Your task to perform on an android device: Open calendar and show me the first week of next month Image 0: 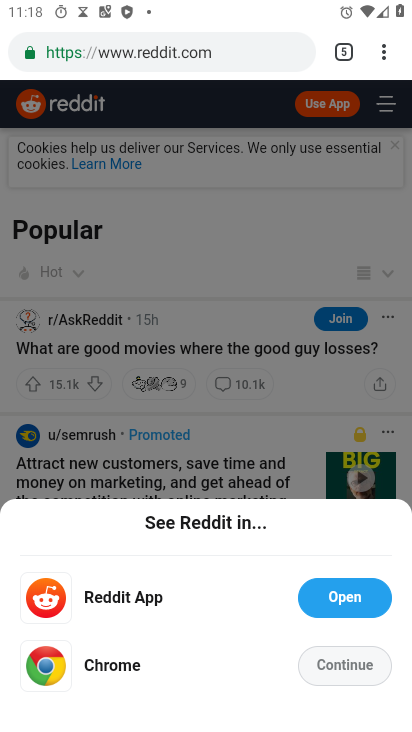
Step 0: press home button
Your task to perform on an android device: Open calendar and show me the first week of next month Image 1: 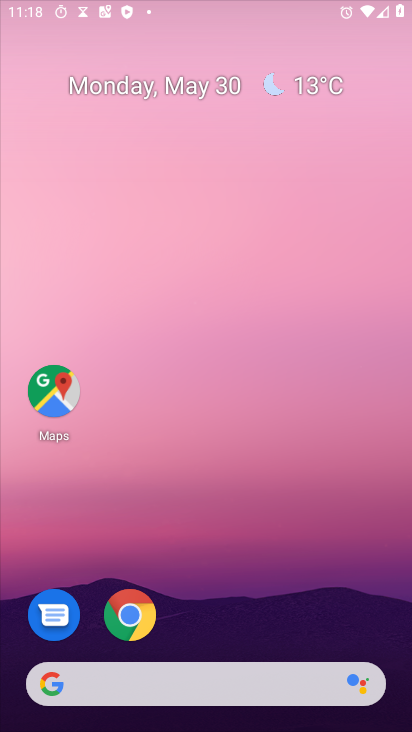
Step 1: drag from (368, 585) to (363, 50)
Your task to perform on an android device: Open calendar and show me the first week of next month Image 2: 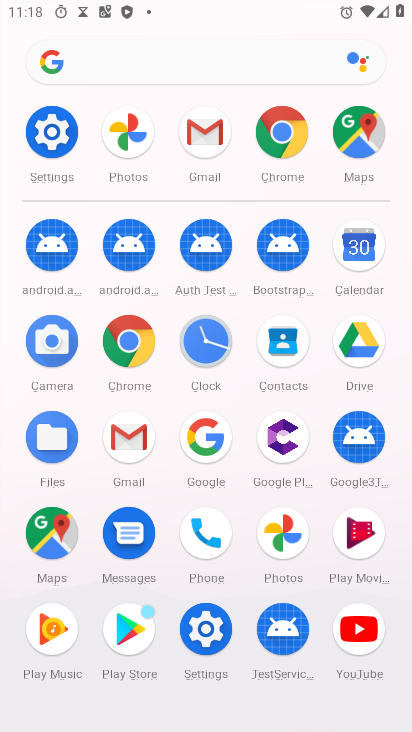
Step 2: click (360, 245)
Your task to perform on an android device: Open calendar and show me the first week of next month Image 3: 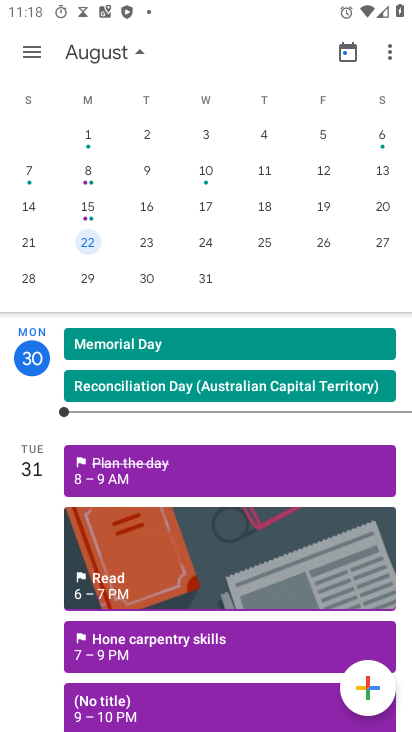
Step 3: drag from (344, 196) to (16, 145)
Your task to perform on an android device: Open calendar and show me the first week of next month Image 4: 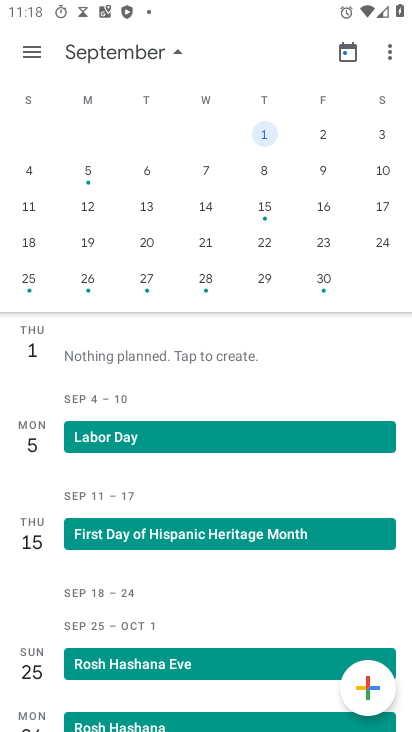
Step 4: click (91, 179)
Your task to perform on an android device: Open calendar and show me the first week of next month Image 5: 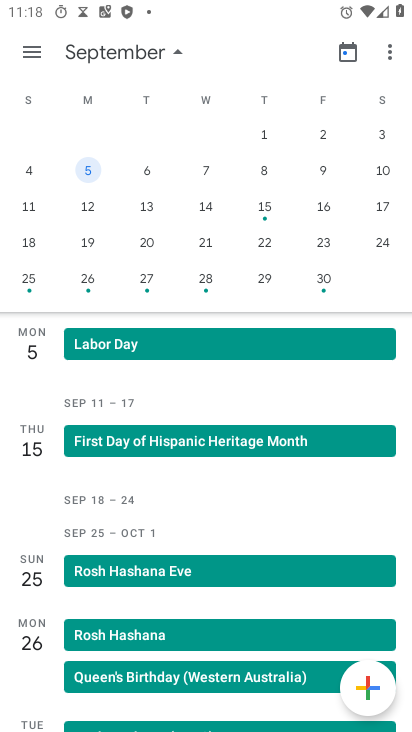
Step 5: task complete